Your task to perform on an android device: What's the weather going to be this weekend? Image 0: 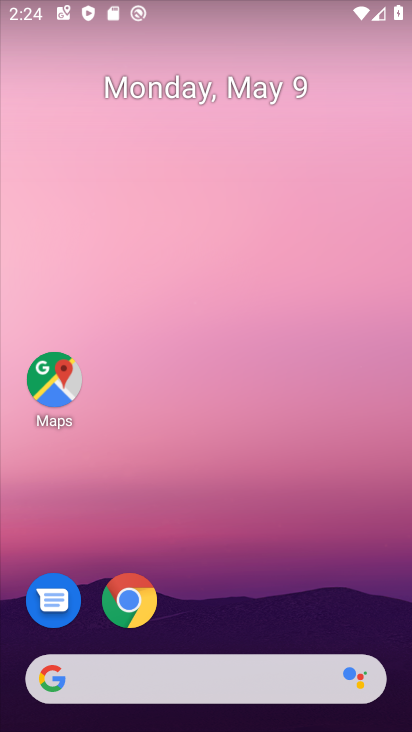
Step 0: drag from (193, 625) to (301, 60)
Your task to perform on an android device: What's the weather going to be this weekend? Image 1: 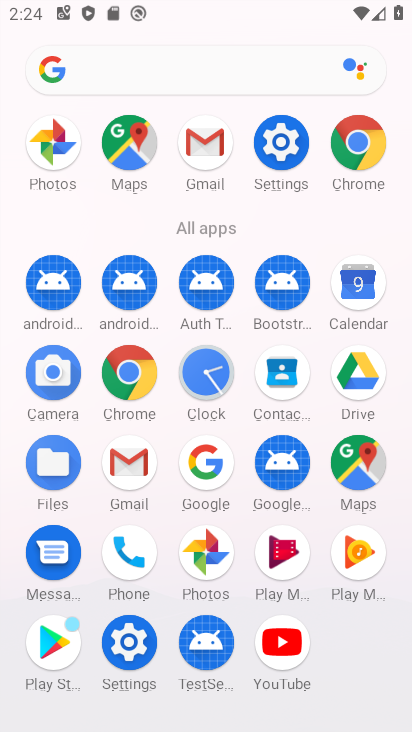
Step 1: click (123, 69)
Your task to perform on an android device: What's the weather going to be this weekend? Image 2: 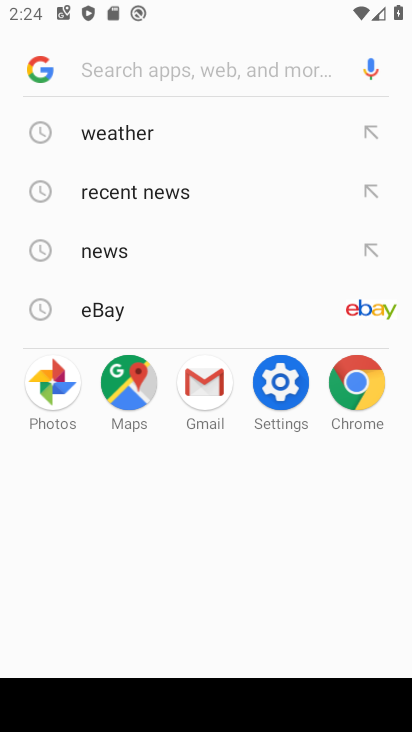
Step 2: click (119, 126)
Your task to perform on an android device: What's the weather going to be this weekend? Image 3: 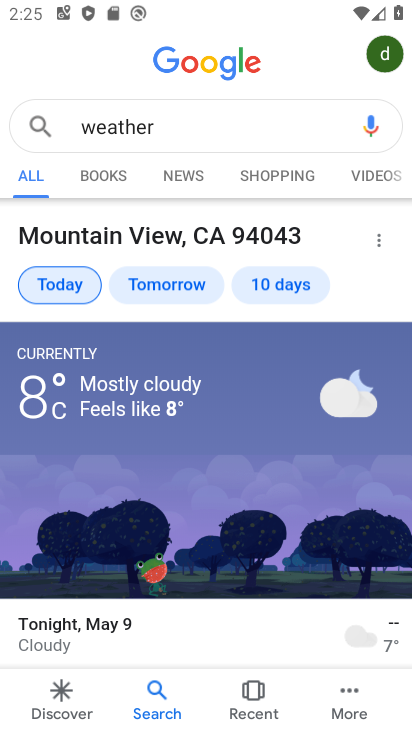
Step 3: click (257, 283)
Your task to perform on an android device: What's the weather going to be this weekend? Image 4: 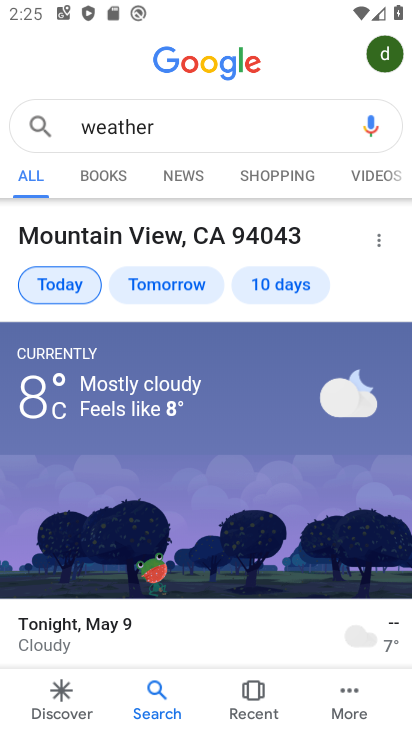
Step 4: click (276, 283)
Your task to perform on an android device: What's the weather going to be this weekend? Image 5: 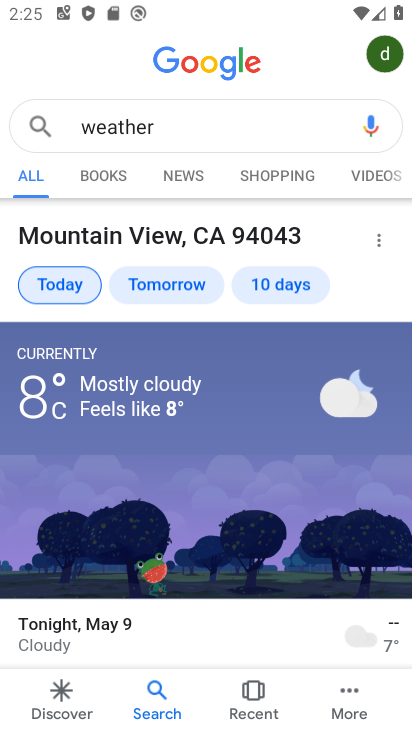
Step 5: click (260, 280)
Your task to perform on an android device: What's the weather going to be this weekend? Image 6: 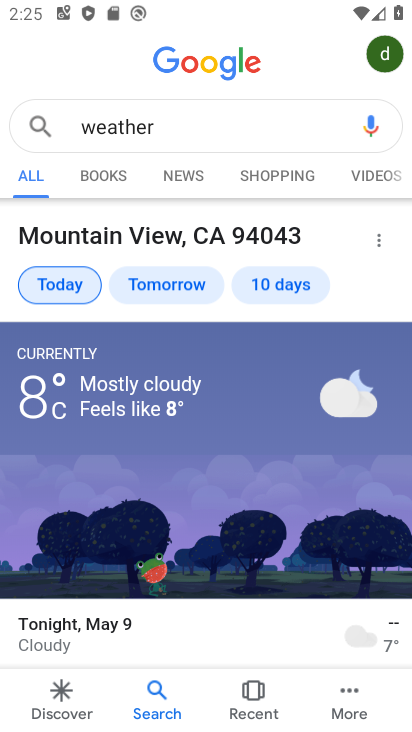
Step 6: click (260, 280)
Your task to perform on an android device: What's the weather going to be this weekend? Image 7: 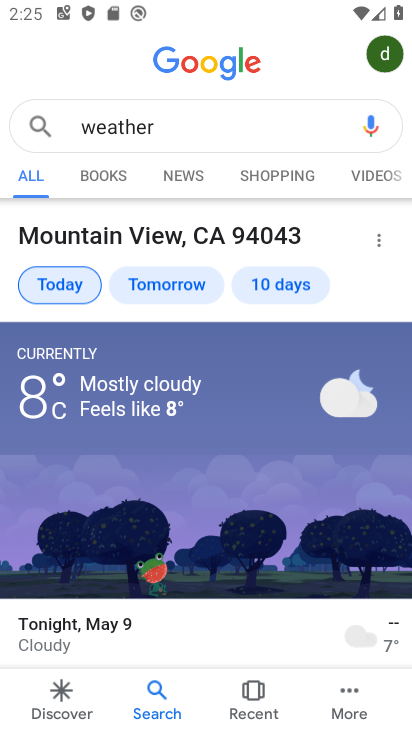
Step 7: task complete